Your task to perform on an android device: Open accessibility settings Image 0: 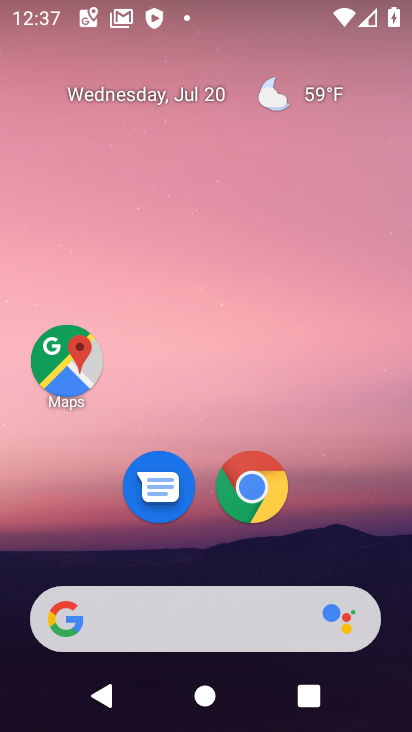
Step 0: drag from (181, 566) to (95, 79)
Your task to perform on an android device: Open accessibility settings Image 1: 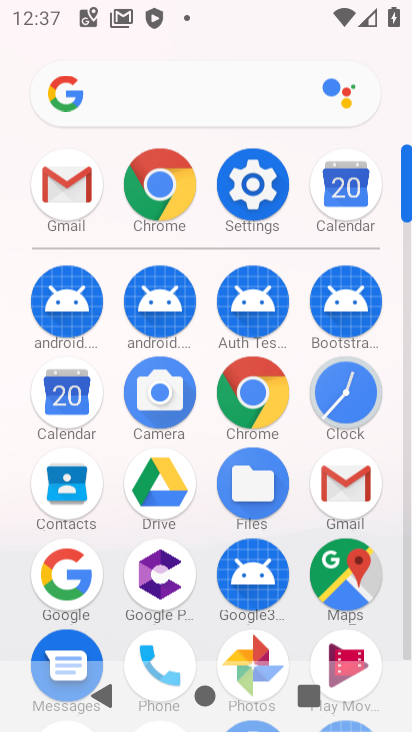
Step 1: click (238, 170)
Your task to perform on an android device: Open accessibility settings Image 2: 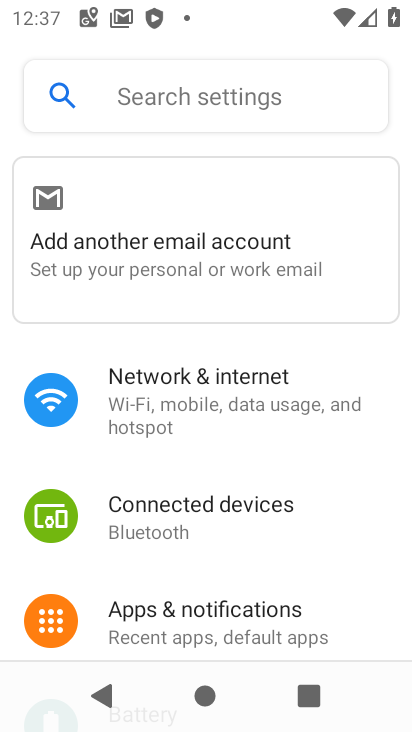
Step 2: drag from (221, 614) to (283, 29)
Your task to perform on an android device: Open accessibility settings Image 3: 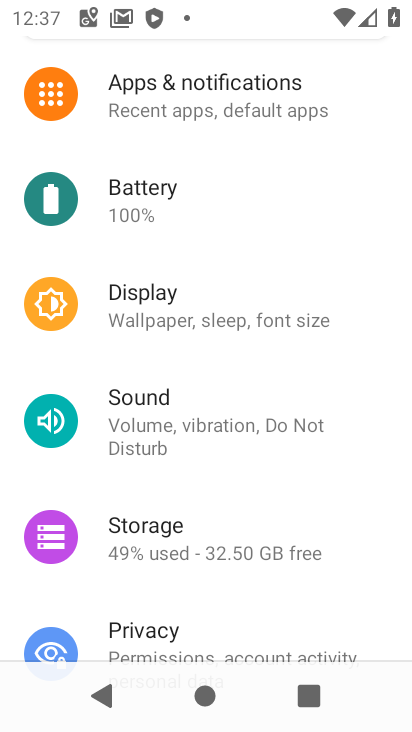
Step 3: drag from (169, 640) to (280, 25)
Your task to perform on an android device: Open accessibility settings Image 4: 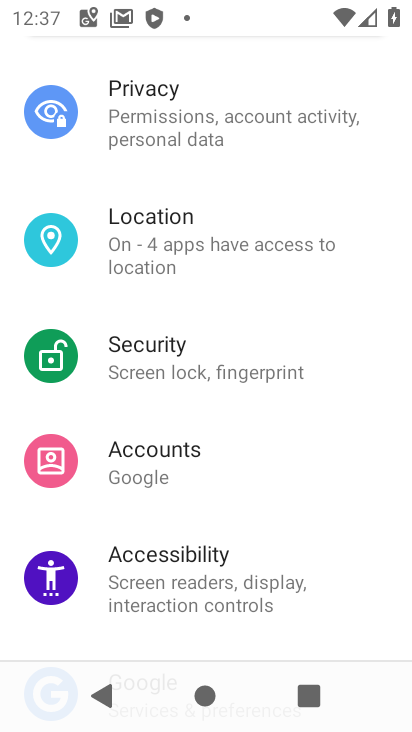
Step 4: click (145, 598)
Your task to perform on an android device: Open accessibility settings Image 5: 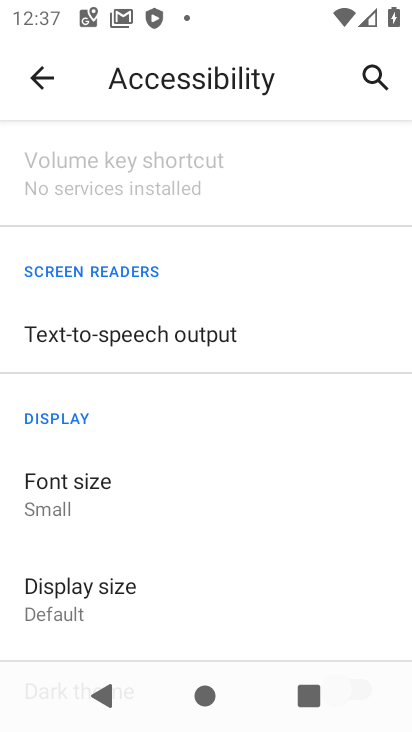
Step 5: task complete